Your task to perform on an android device: toggle airplane mode Image 0: 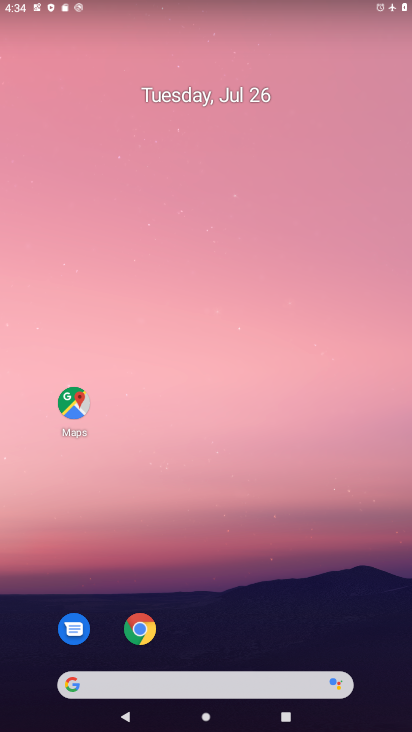
Step 0: drag from (245, 722) to (225, 112)
Your task to perform on an android device: toggle airplane mode Image 1: 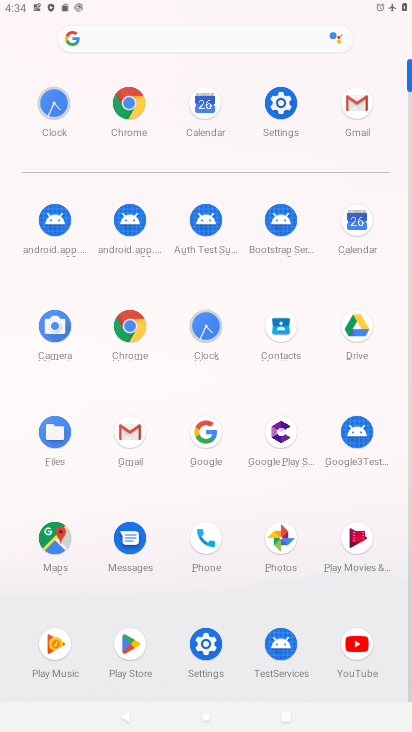
Step 1: click (281, 104)
Your task to perform on an android device: toggle airplane mode Image 2: 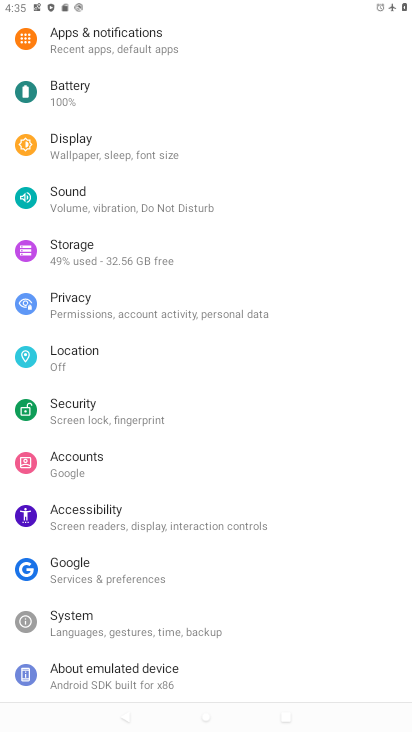
Step 2: drag from (159, 216) to (150, 519)
Your task to perform on an android device: toggle airplane mode Image 3: 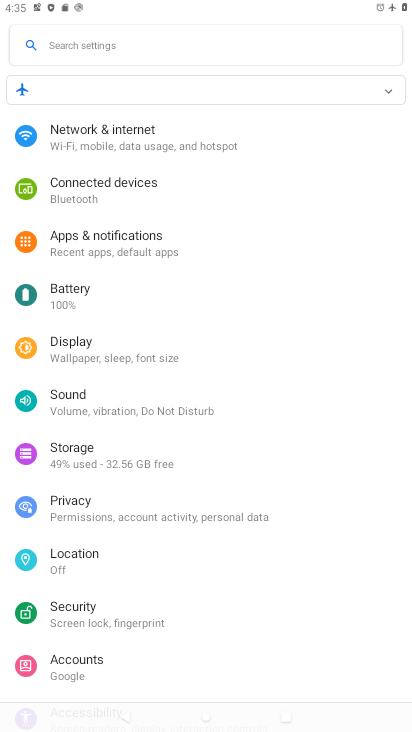
Step 3: click (116, 138)
Your task to perform on an android device: toggle airplane mode Image 4: 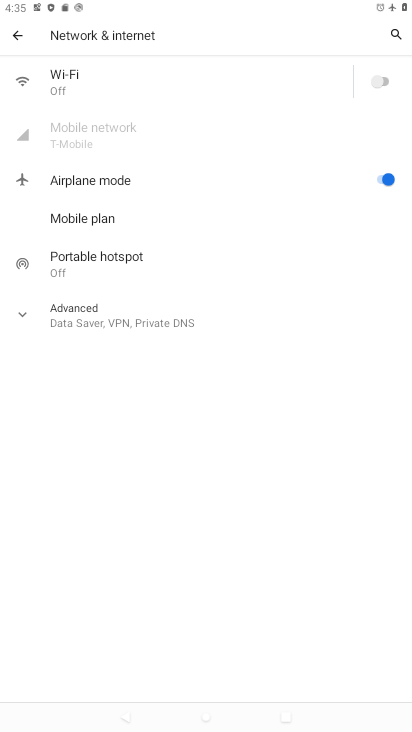
Step 4: click (386, 177)
Your task to perform on an android device: toggle airplane mode Image 5: 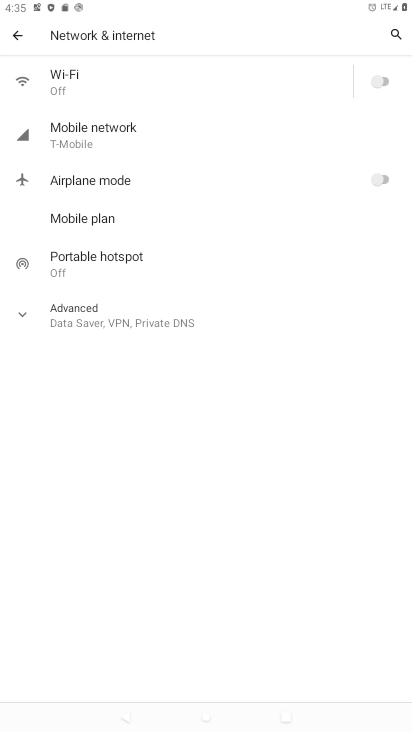
Step 5: task complete